Your task to perform on an android device: Show me recent news Image 0: 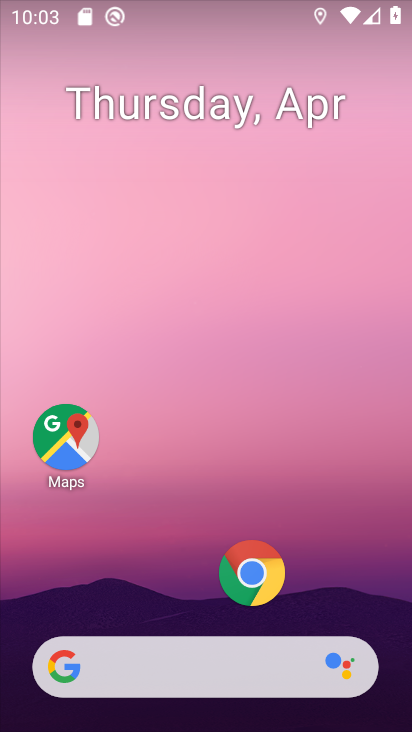
Step 0: drag from (192, 609) to (248, 68)
Your task to perform on an android device: Show me recent news Image 1: 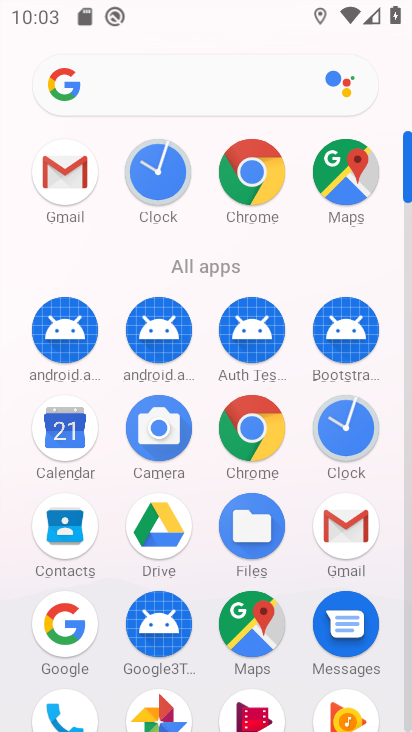
Step 1: click (73, 622)
Your task to perform on an android device: Show me recent news Image 2: 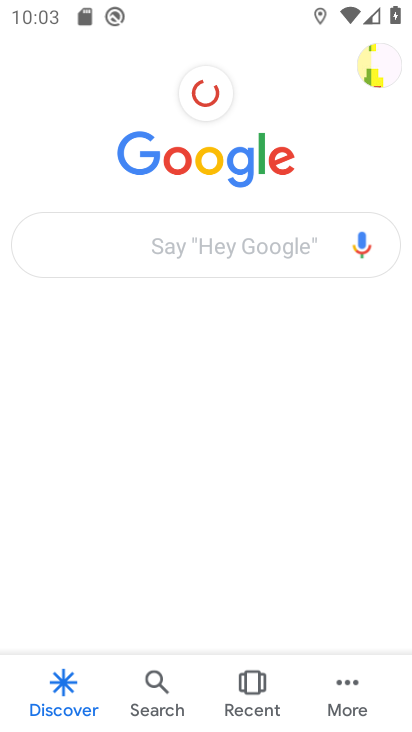
Step 2: click (194, 257)
Your task to perform on an android device: Show me recent news Image 3: 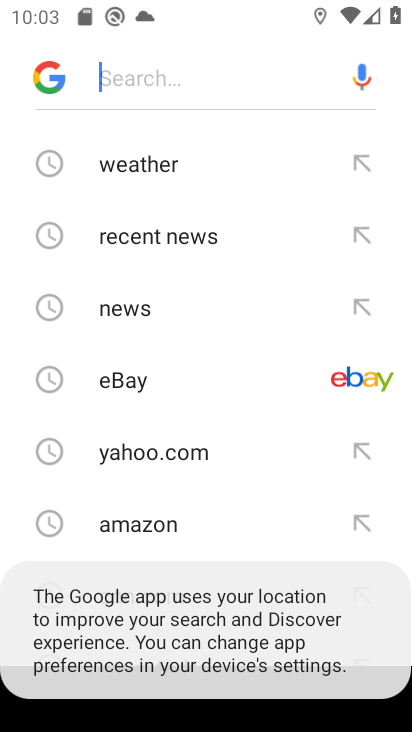
Step 3: click (167, 238)
Your task to perform on an android device: Show me recent news Image 4: 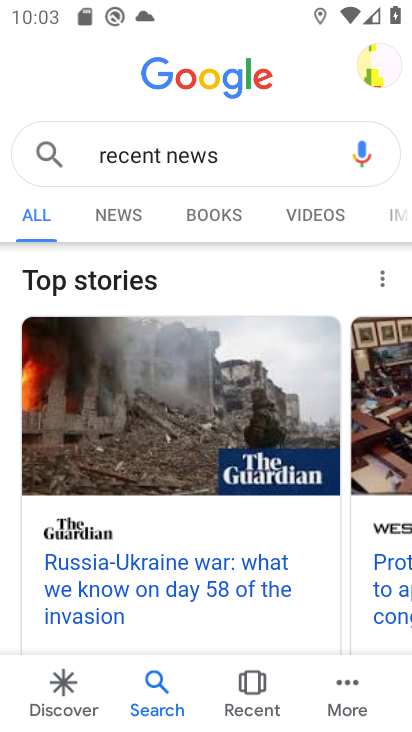
Step 4: task complete